Your task to perform on an android device: Search for vegetarian restaurants on Maps Image 0: 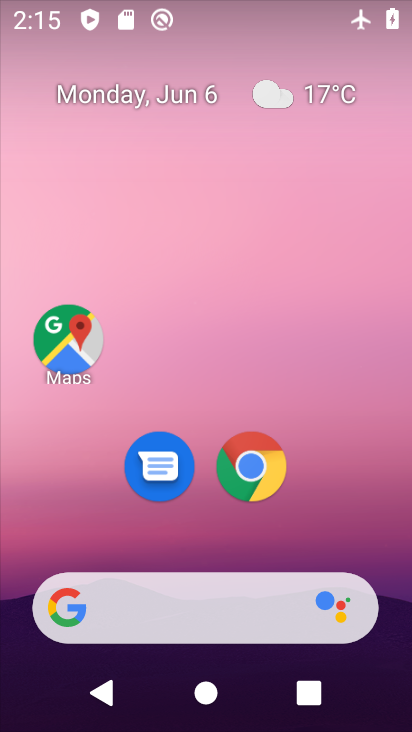
Step 0: click (177, 203)
Your task to perform on an android device: Search for vegetarian restaurants on Maps Image 1: 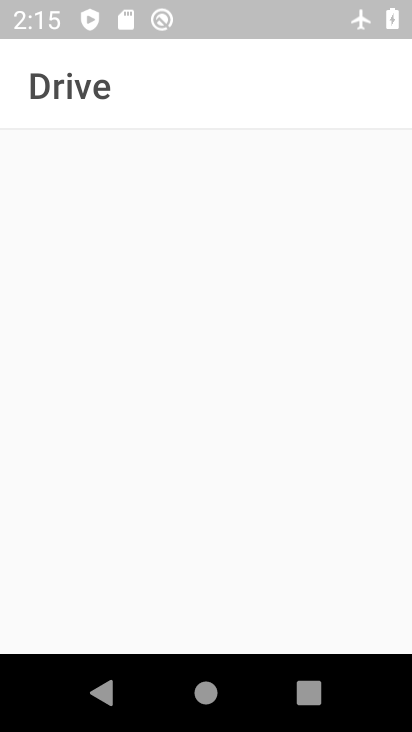
Step 1: drag from (147, 421) to (139, 259)
Your task to perform on an android device: Search for vegetarian restaurants on Maps Image 2: 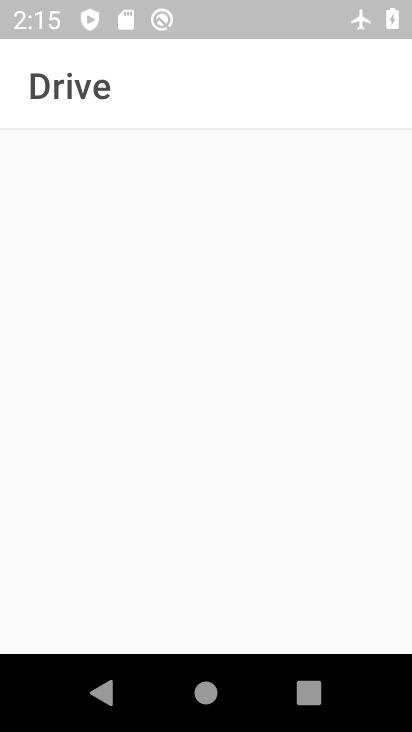
Step 2: drag from (242, 641) to (169, 213)
Your task to perform on an android device: Search for vegetarian restaurants on Maps Image 3: 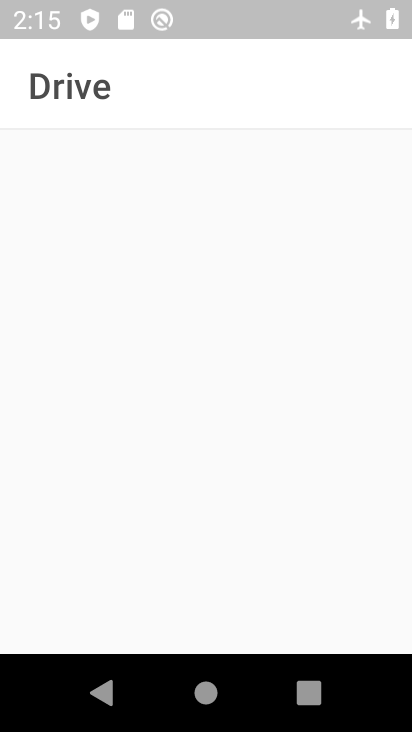
Step 3: press back button
Your task to perform on an android device: Search for vegetarian restaurants on Maps Image 4: 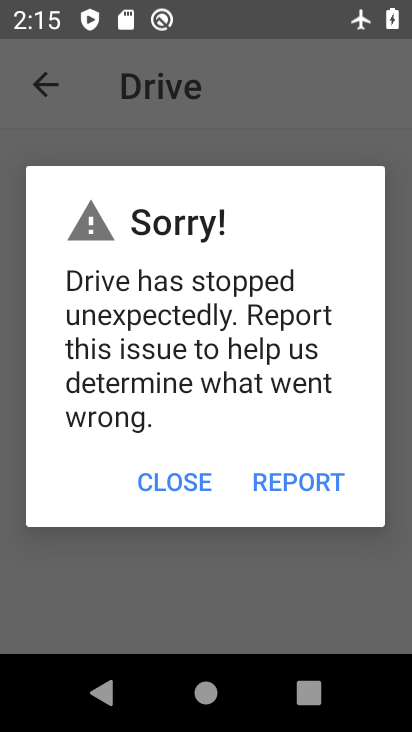
Step 4: click (160, 482)
Your task to perform on an android device: Search for vegetarian restaurants on Maps Image 5: 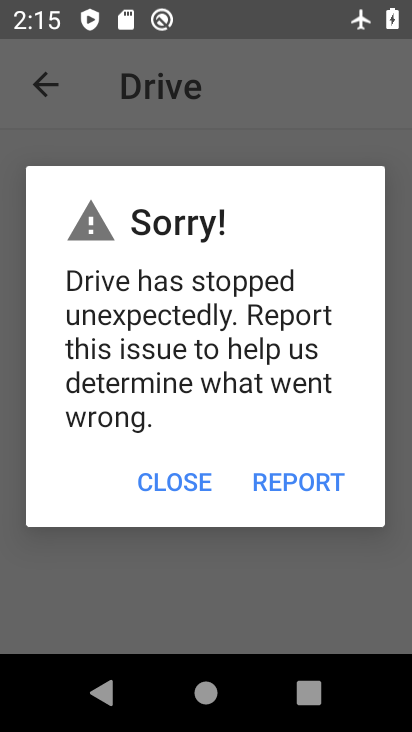
Step 5: click (160, 482)
Your task to perform on an android device: Search for vegetarian restaurants on Maps Image 6: 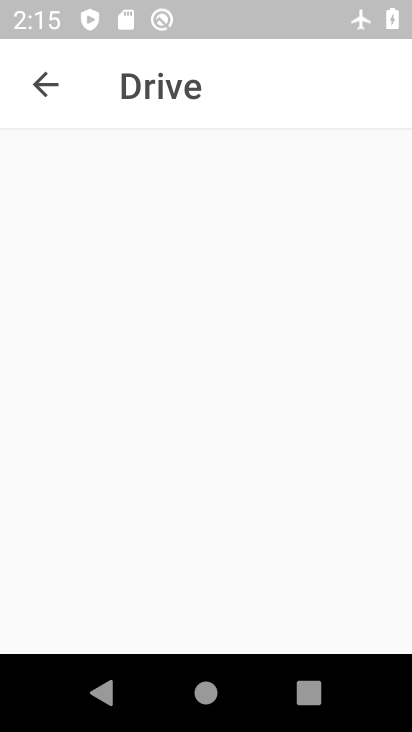
Step 6: click (160, 482)
Your task to perform on an android device: Search for vegetarian restaurants on Maps Image 7: 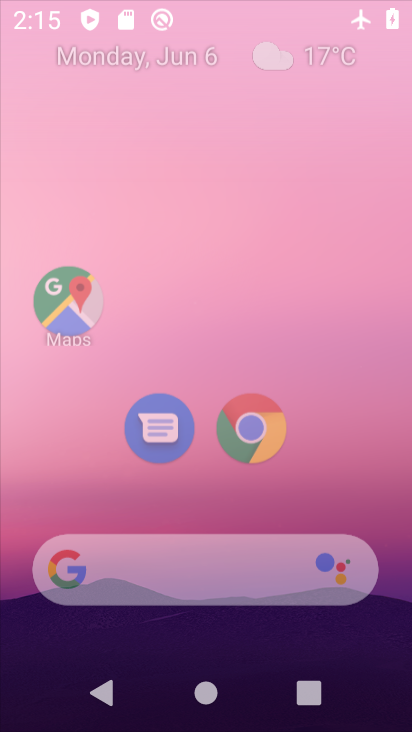
Step 7: click (166, 481)
Your task to perform on an android device: Search for vegetarian restaurants on Maps Image 8: 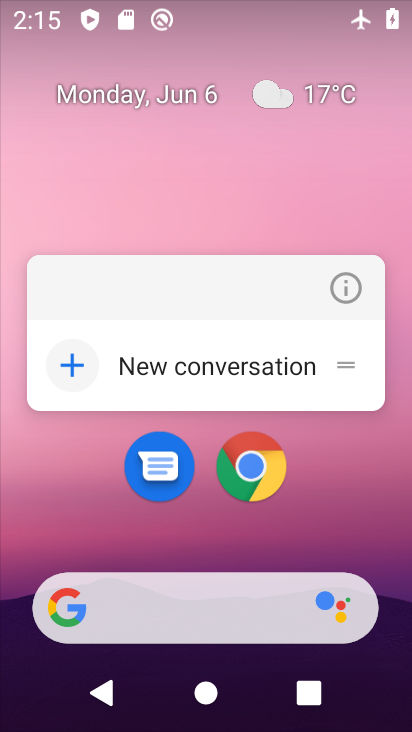
Step 8: click (183, 135)
Your task to perform on an android device: Search for vegetarian restaurants on Maps Image 9: 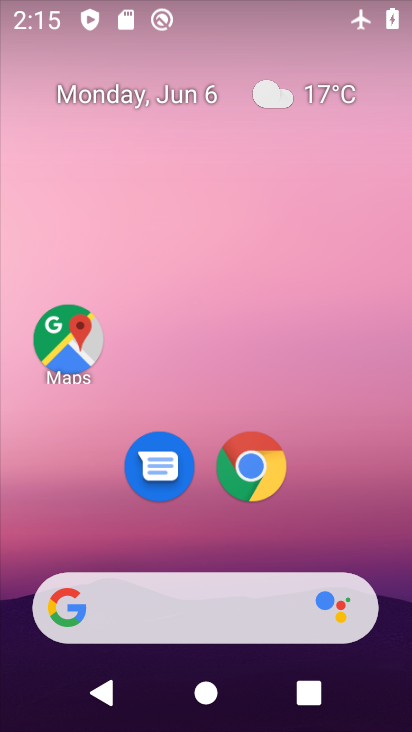
Step 9: drag from (241, 566) to (149, 92)
Your task to perform on an android device: Search for vegetarian restaurants on Maps Image 10: 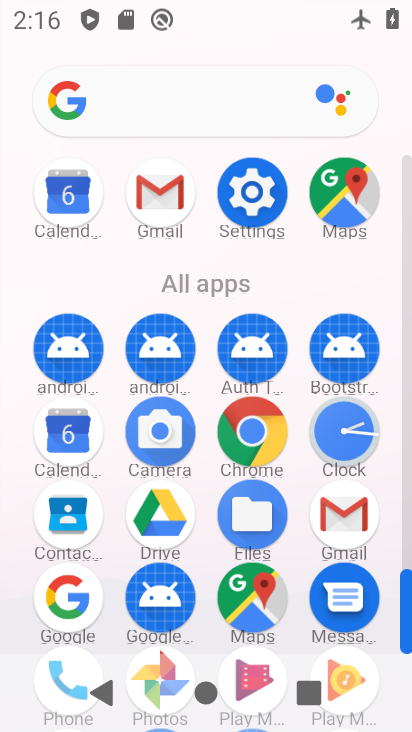
Step 10: click (257, 594)
Your task to perform on an android device: Search for vegetarian restaurants on Maps Image 11: 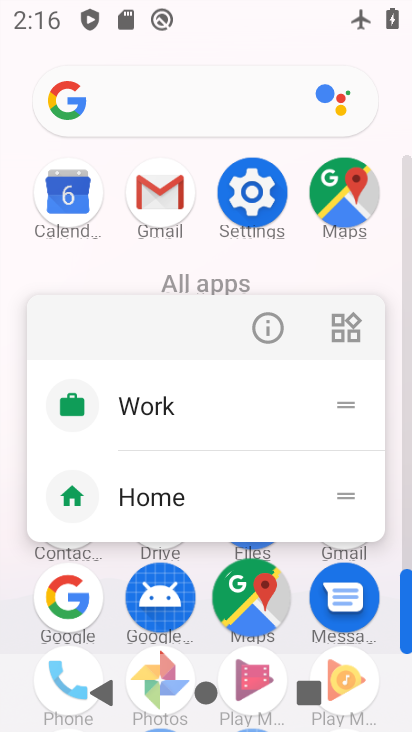
Step 11: click (250, 601)
Your task to perform on an android device: Search for vegetarian restaurants on Maps Image 12: 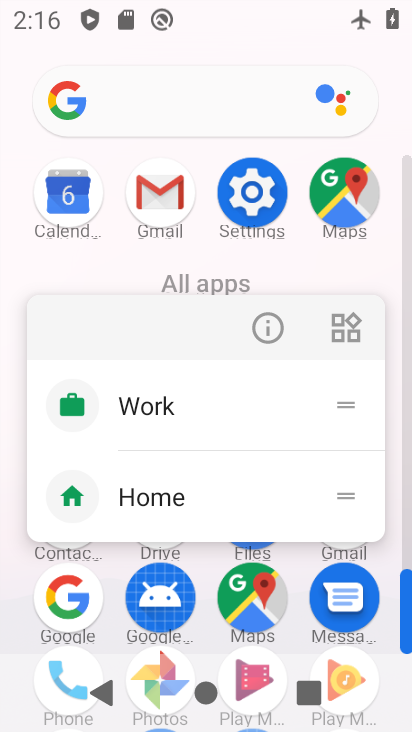
Step 12: click (250, 601)
Your task to perform on an android device: Search for vegetarian restaurants on Maps Image 13: 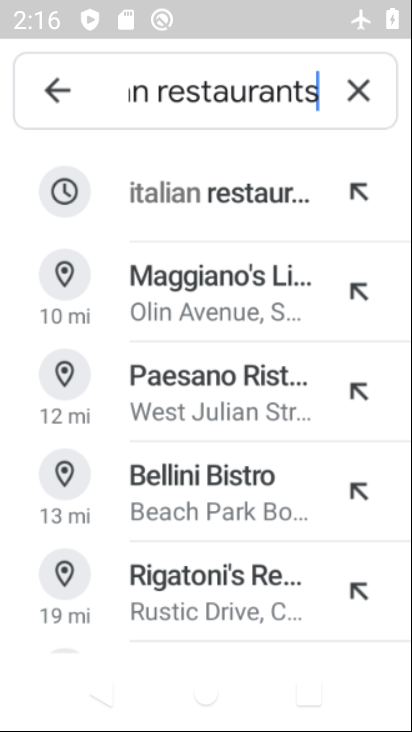
Step 13: click (247, 595)
Your task to perform on an android device: Search for vegetarian restaurants on Maps Image 14: 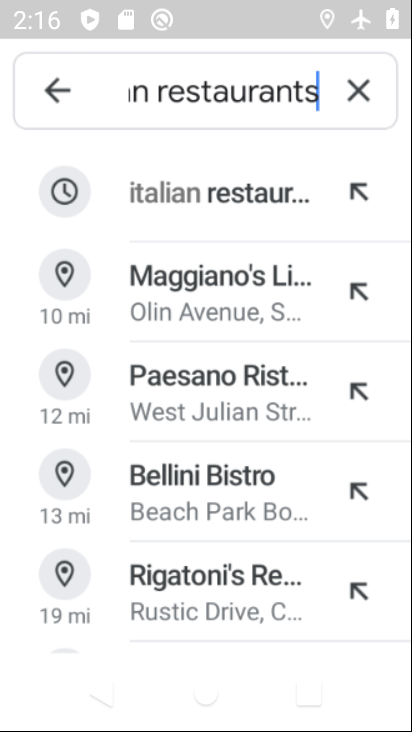
Step 14: click (251, 583)
Your task to perform on an android device: Search for vegetarian restaurants on Maps Image 15: 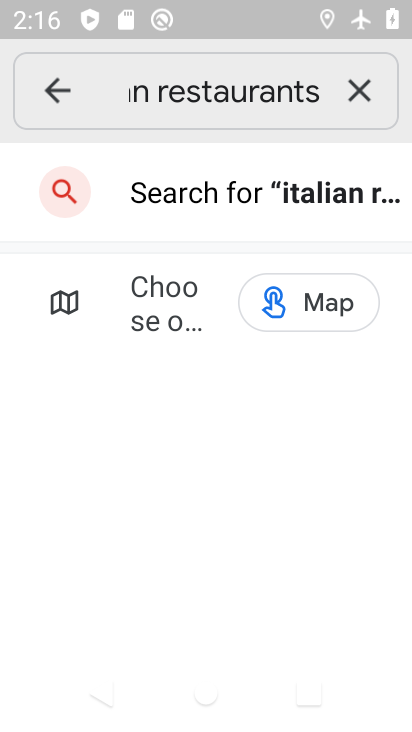
Step 15: click (357, 84)
Your task to perform on an android device: Search for vegetarian restaurants on Maps Image 16: 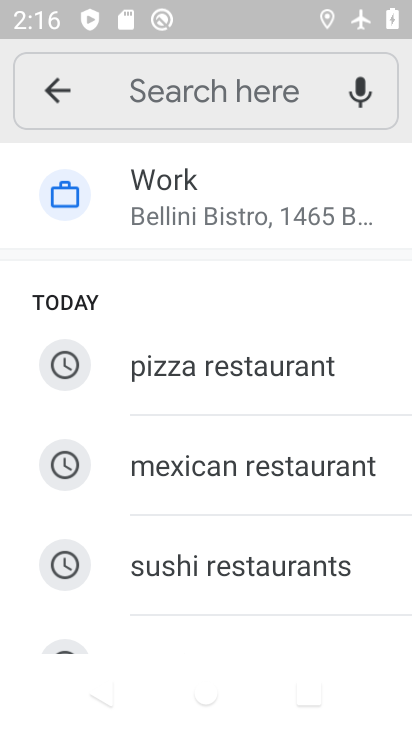
Step 16: type "vegetarian rrstaurants"
Your task to perform on an android device: Search for vegetarian restaurants on Maps Image 17: 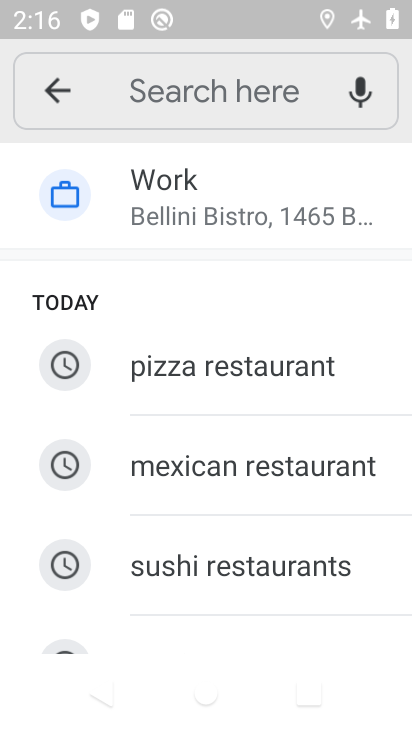
Step 17: click (147, 86)
Your task to perform on an android device: Search for vegetarian restaurants on Maps Image 18: 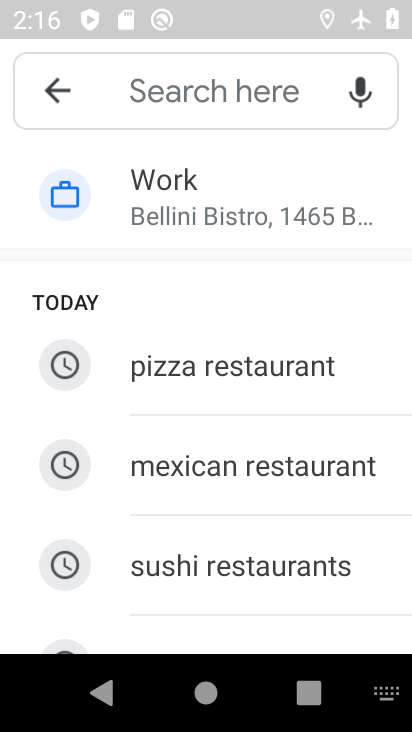
Step 18: click (140, 89)
Your task to perform on an android device: Search for vegetarian restaurants on Maps Image 19: 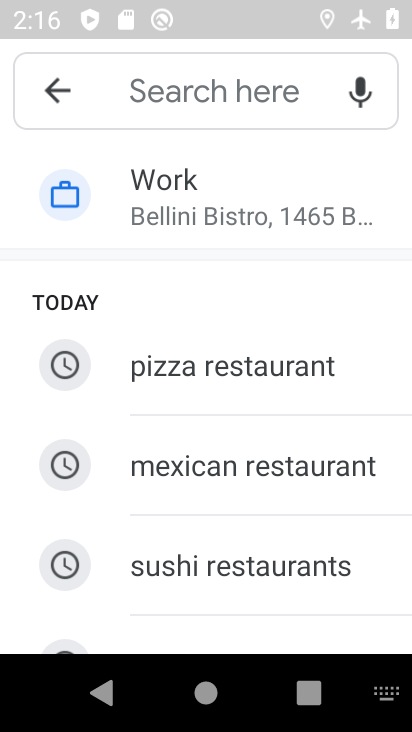
Step 19: type "vegetarian restaurants"
Your task to perform on an android device: Search for vegetarian restaurants on Maps Image 20: 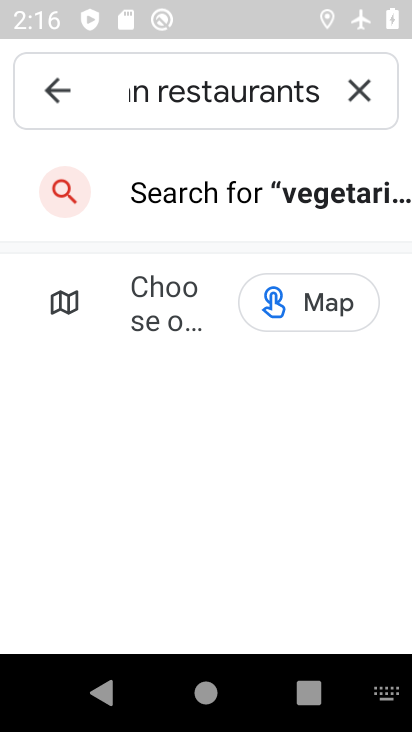
Step 20: task complete